Your task to perform on an android device: Check the weather Image 0: 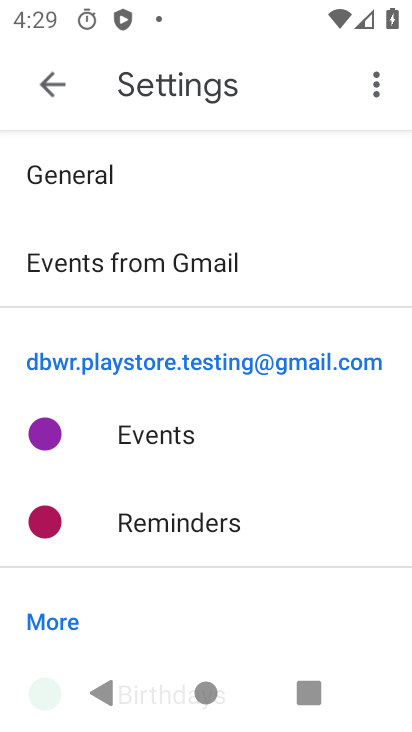
Step 0: press home button
Your task to perform on an android device: Check the weather Image 1: 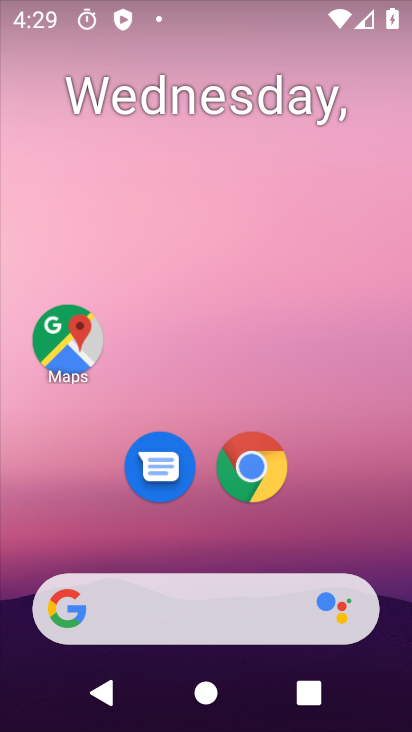
Step 1: drag from (377, 669) to (372, 119)
Your task to perform on an android device: Check the weather Image 2: 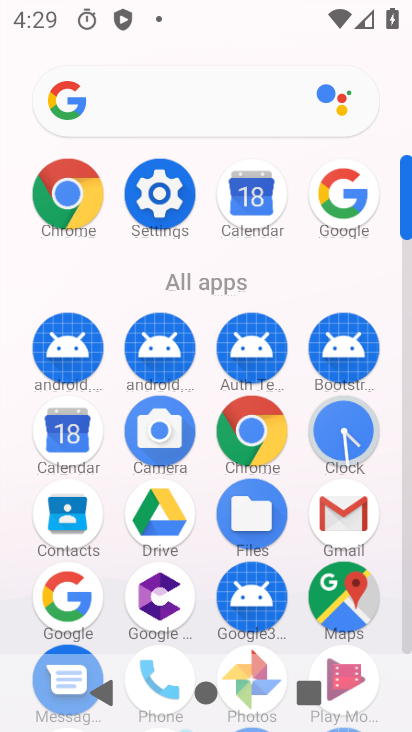
Step 2: click (82, 586)
Your task to perform on an android device: Check the weather Image 3: 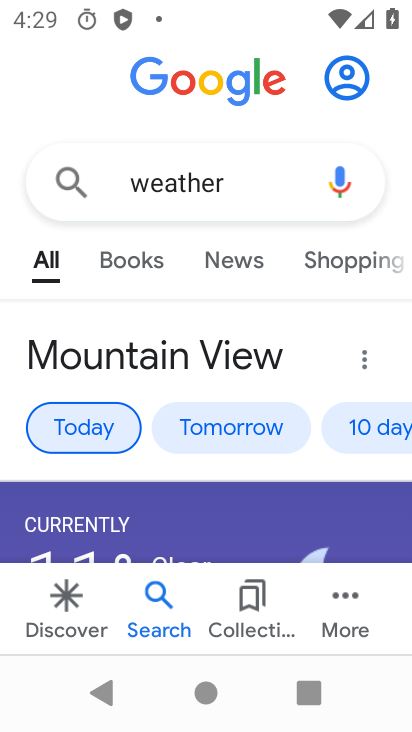
Step 3: click (83, 428)
Your task to perform on an android device: Check the weather Image 4: 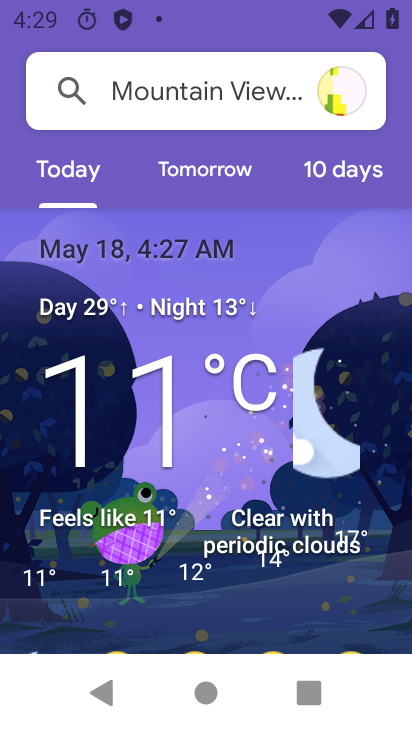
Step 4: task complete